Your task to perform on an android device: Open ESPN.com Image 0: 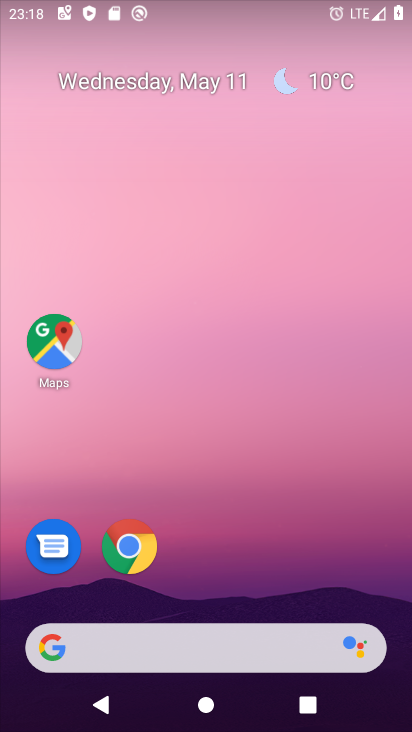
Step 0: click (127, 544)
Your task to perform on an android device: Open ESPN.com Image 1: 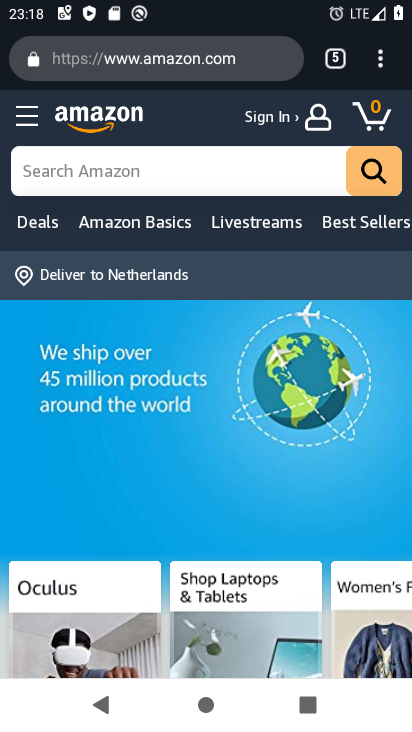
Step 1: click (154, 56)
Your task to perform on an android device: Open ESPN.com Image 2: 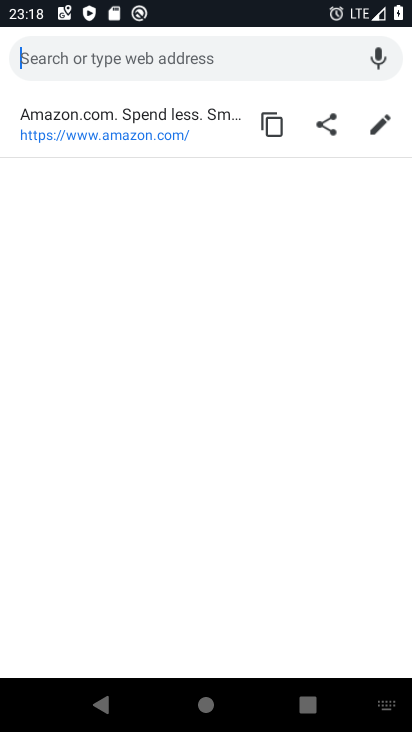
Step 2: type "espn.com"
Your task to perform on an android device: Open ESPN.com Image 3: 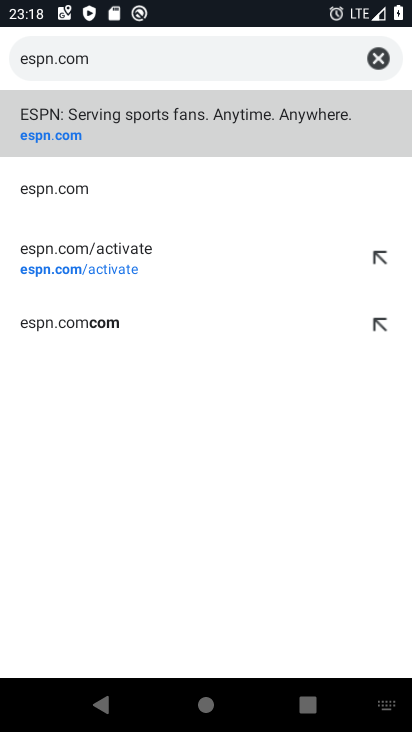
Step 3: click (57, 124)
Your task to perform on an android device: Open ESPN.com Image 4: 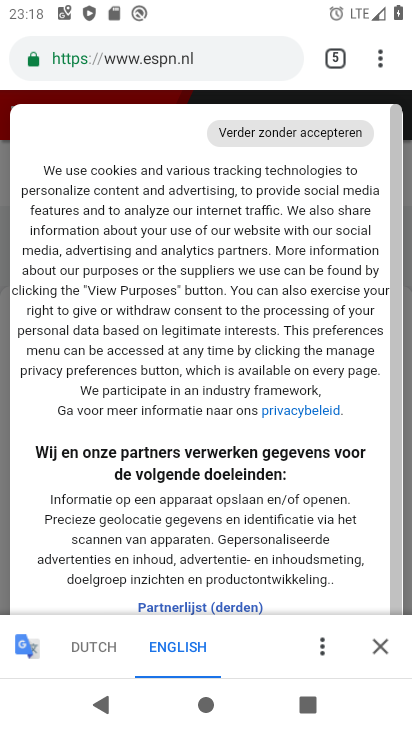
Step 4: task complete